Your task to perform on an android device: Open the map Image 0: 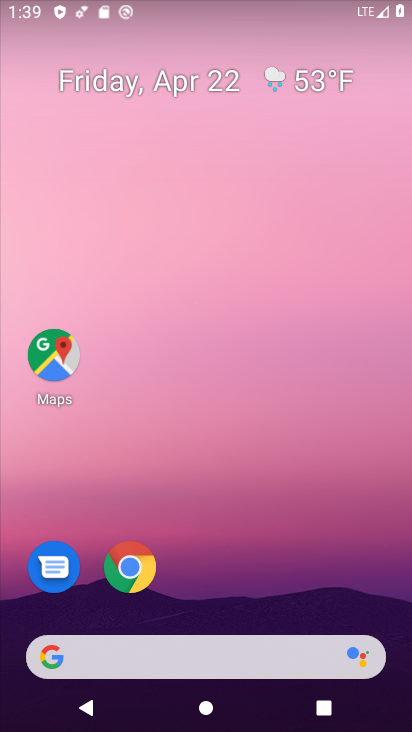
Step 0: click (55, 350)
Your task to perform on an android device: Open the map Image 1: 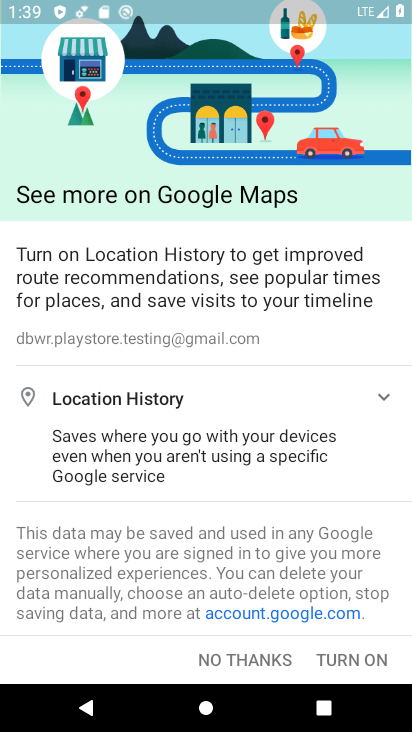
Step 1: click (237, 657)
Your task to perform on an android device: Open the map Image 2: 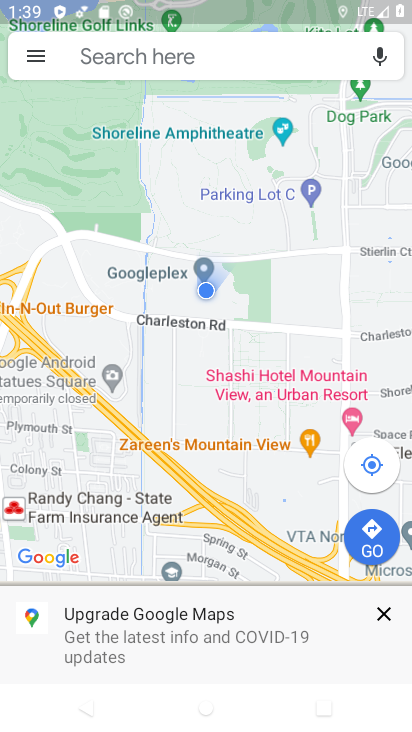
Step 2: task complete